Your task to perform on an android device: Go to privacy settings Image 0: 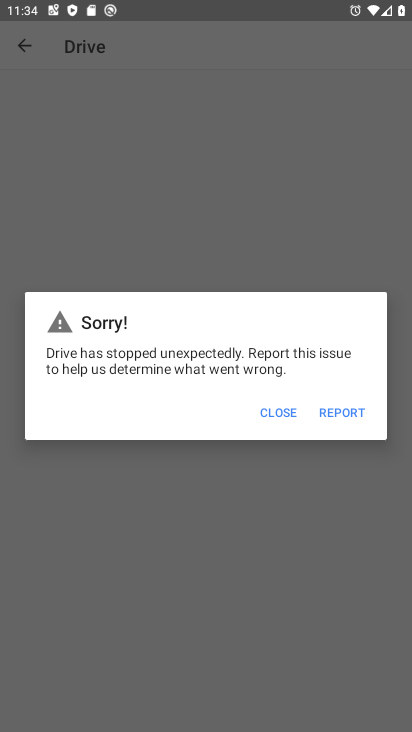
Step 0: press home button
Your task to perform on an android device: Go to privacy settings Image 1: 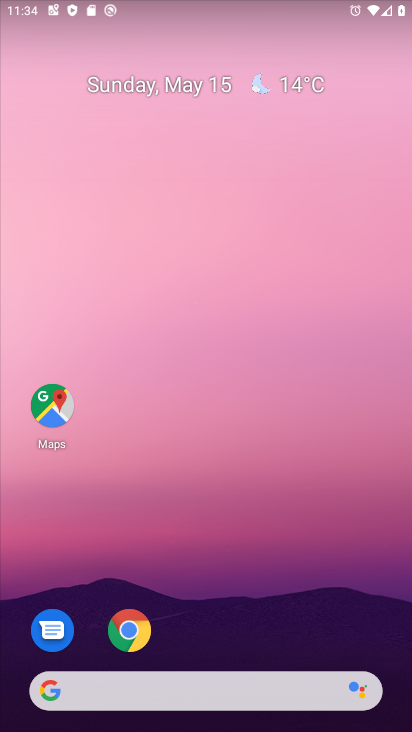
Step 1: drag from (211, 720) to (211, 227)
Your task to perform on an android device: Go to privacy settings Image 2: 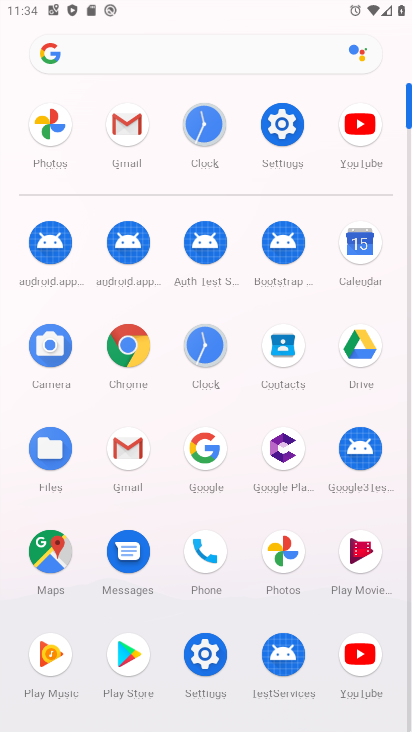
Step 2: click (285, 118)
Your task to perform on an android device: Go to privacy settings Image 3: 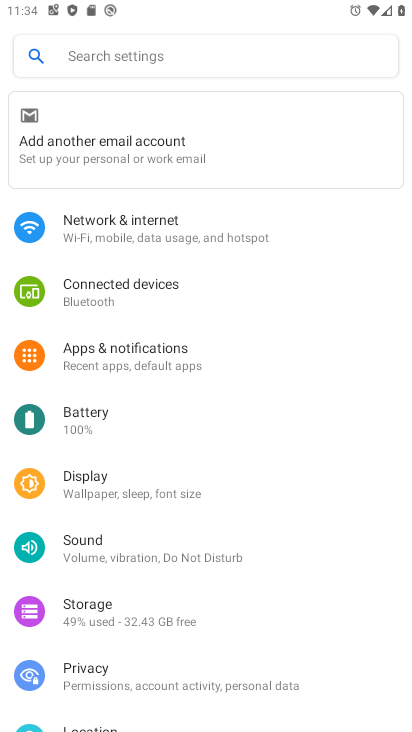
Step 3: click (87, 671)
Your task to perform on an android device: Go to privacy settings Image 4: 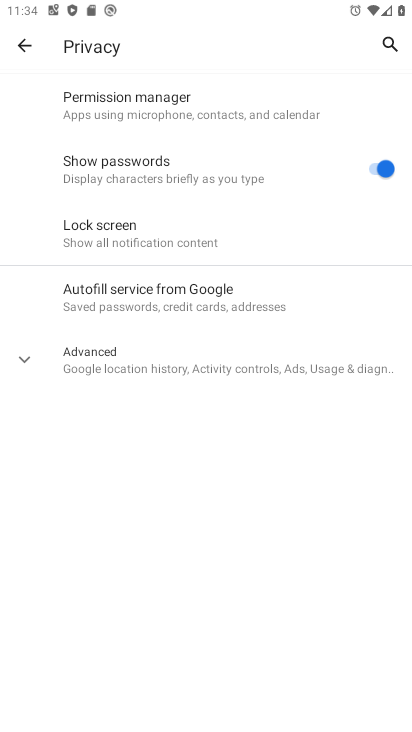
Step 4: task complete